Your task to perform on an android device: open sync settings in chrome Image 0: 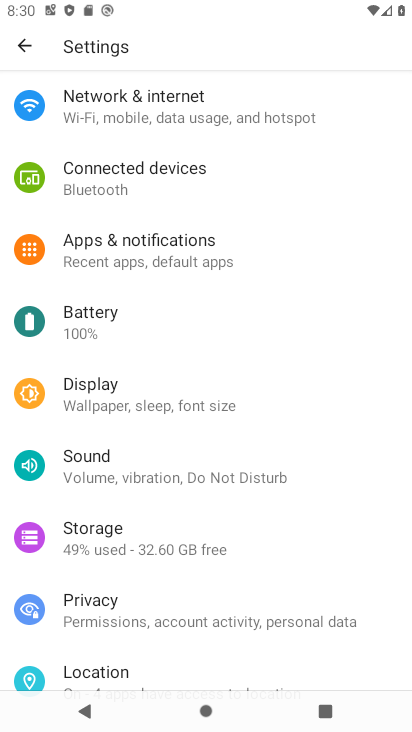
Step 0: press home button
Your task to perform on an android device: open sync settings in chrome Image 1: 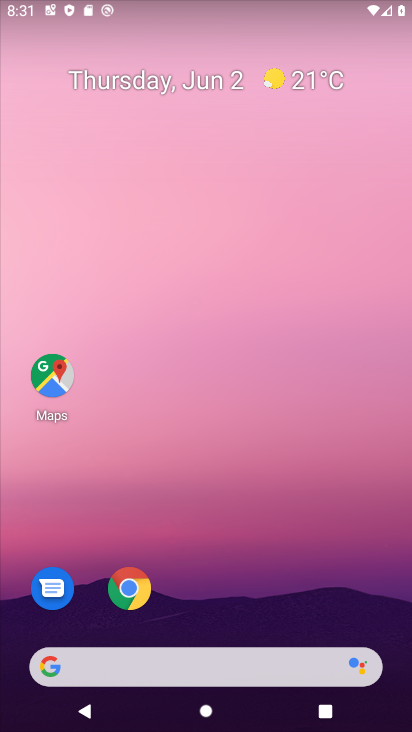
Step 1: click (122, 593)
Your task to perform on an android device: open sync settings in chrome Image 2: 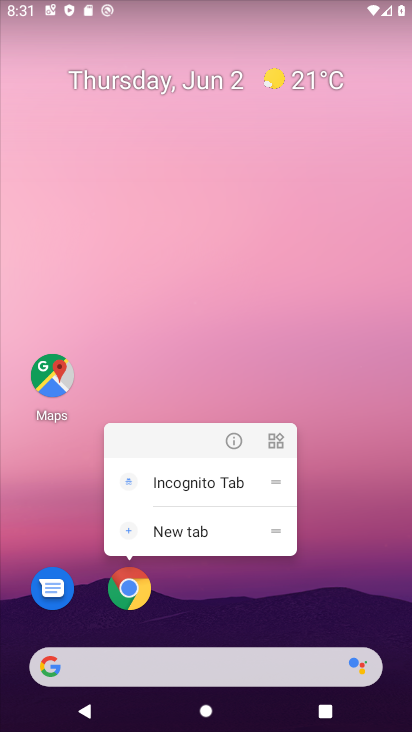
Step 2: click (136, 594)
Your task to perform on an android device: open sync settings in chrome Image 3: 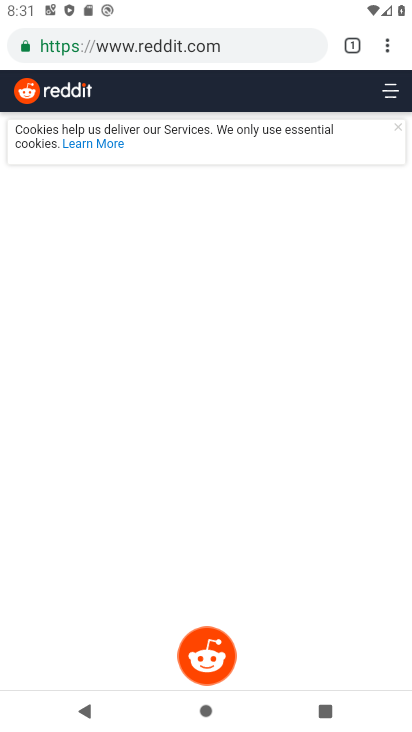
Step 3: click (387, 36)
Your task to perform on an android device: open sync settings in chrome Image 4: 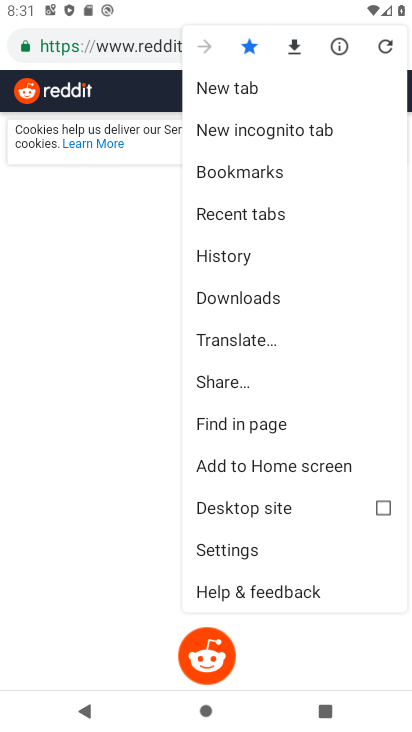
Step 4: click (228, 550)
Your task to perform on an android device: open sync settings in chrome Image 5: 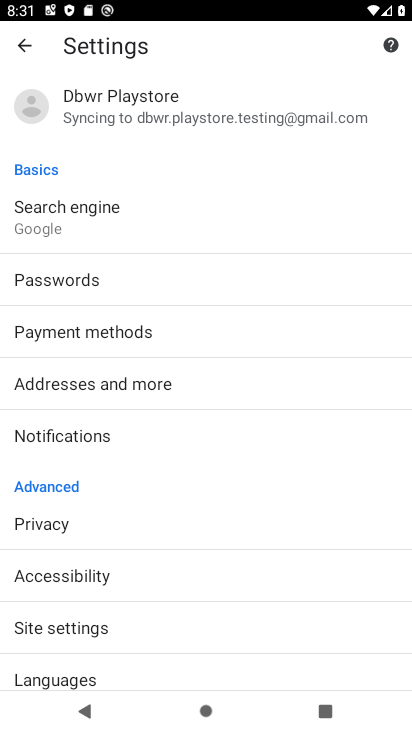
Step 5: click (106, 112)
Your task to perform on an android device: open sync settings in chrome Image 6: 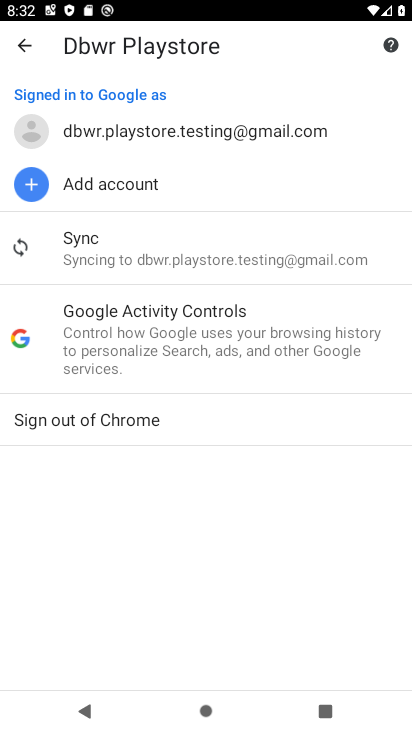
Step 6: click (149, 246)
Your task to perform on an android device: open sync settings in chrome Image 7: 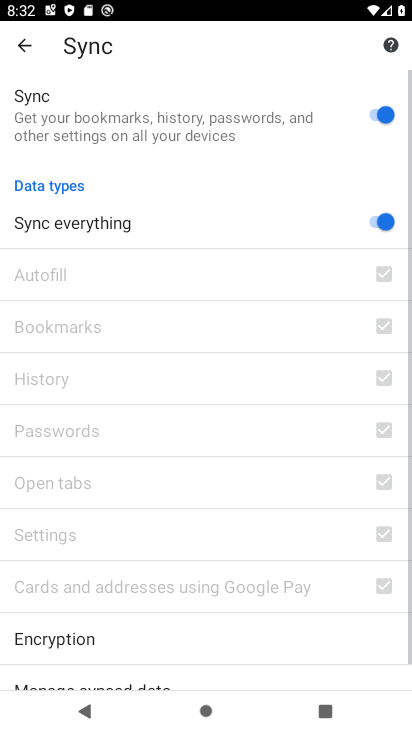
Step 7: task complete